Your task to perform on an android device: Open calendar and show me the first week of next month Image 0: 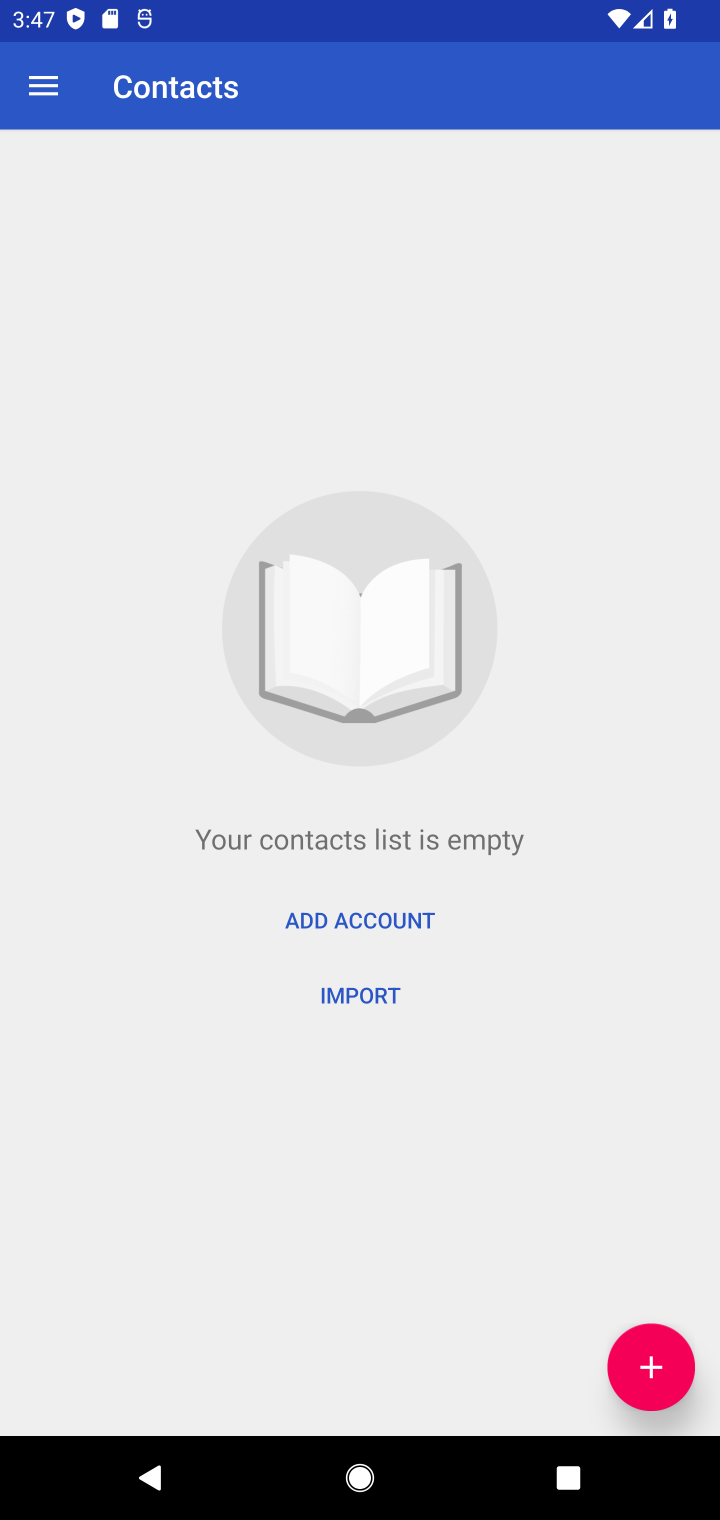
Step 0: press home button
Your task to perform on an android device: Open calendar and show me the first week of next month Image 1: 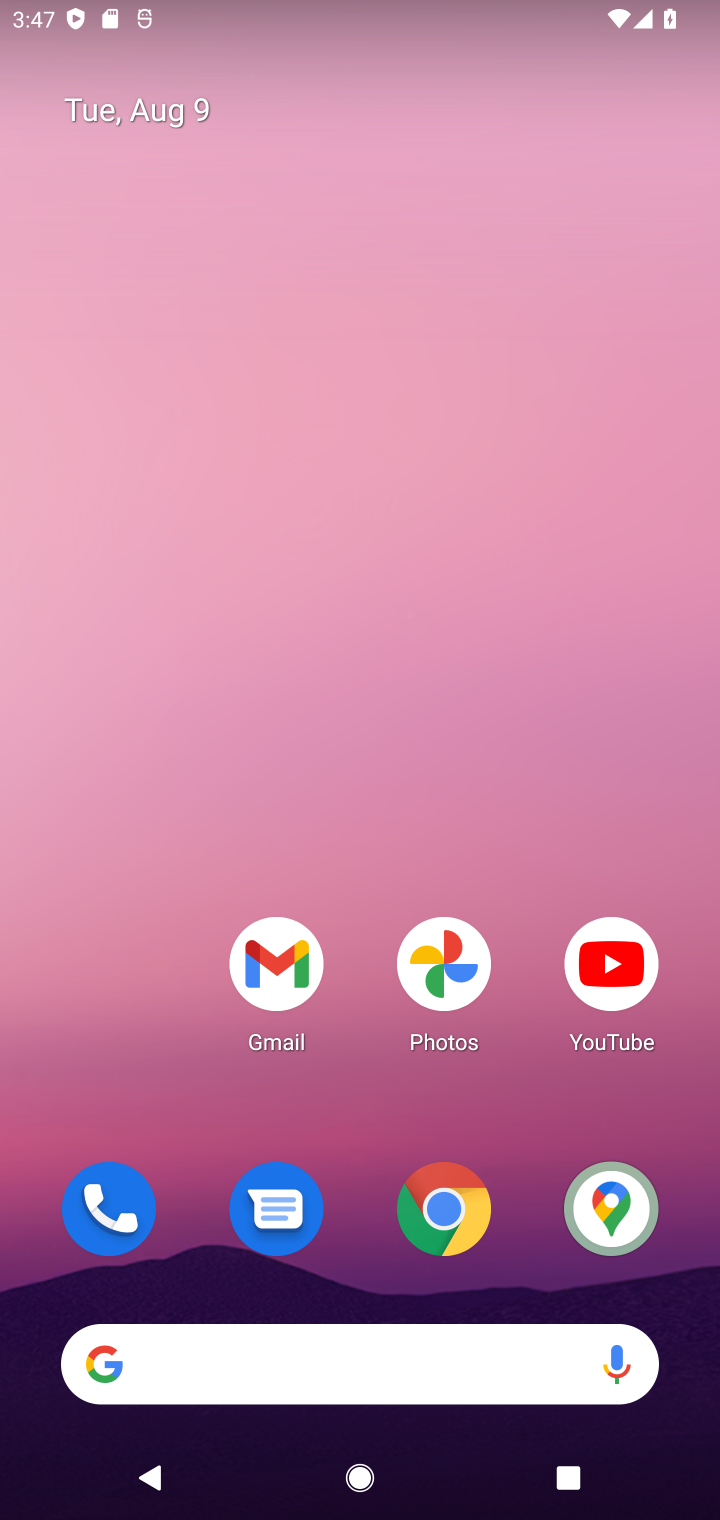
Step 1: drag from (135, 1042) to (110, 202)
Your task to perform on an android device: Open calendar and show me the first week of next month Image 2: 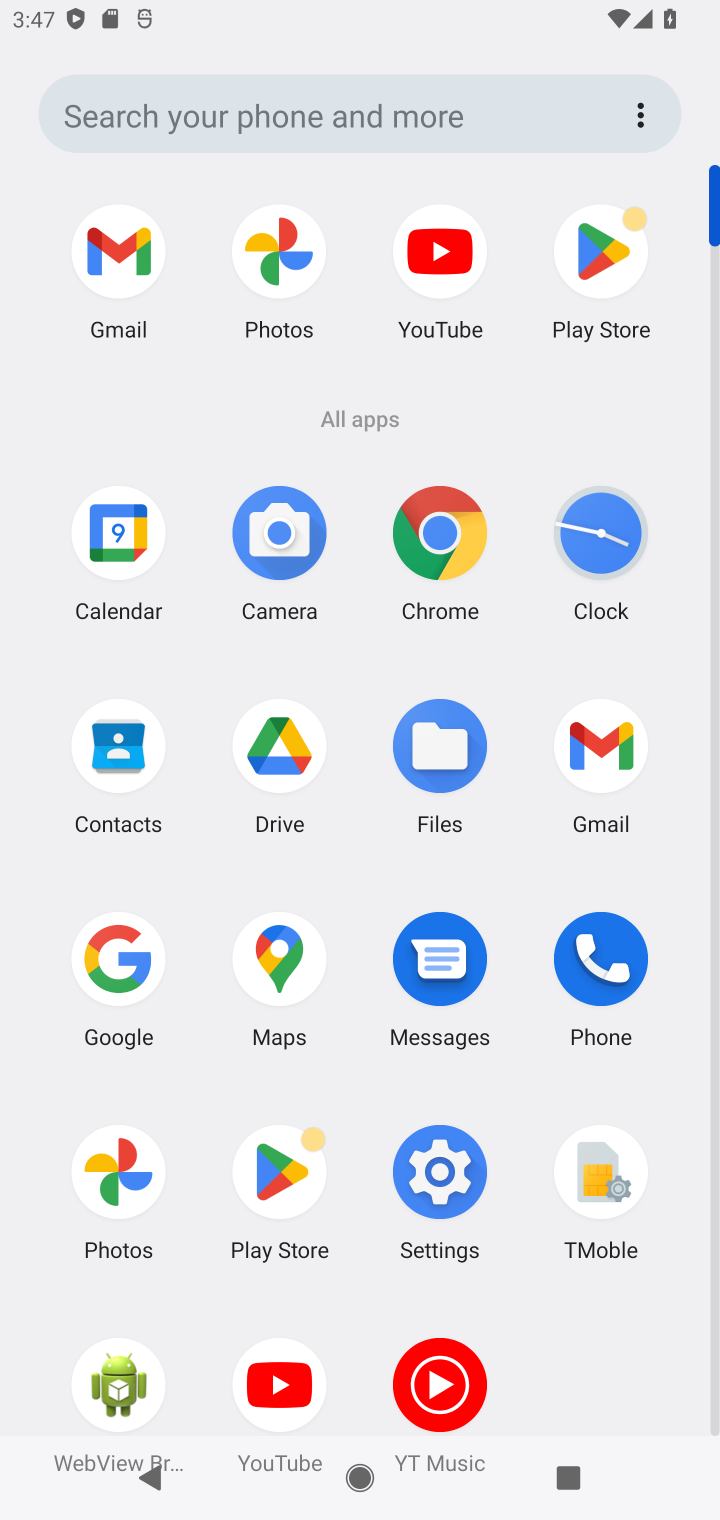
Step 2: click (120, 523)
Your task to perform on an android device: Open calendar and show me the first week of next month Image 3: 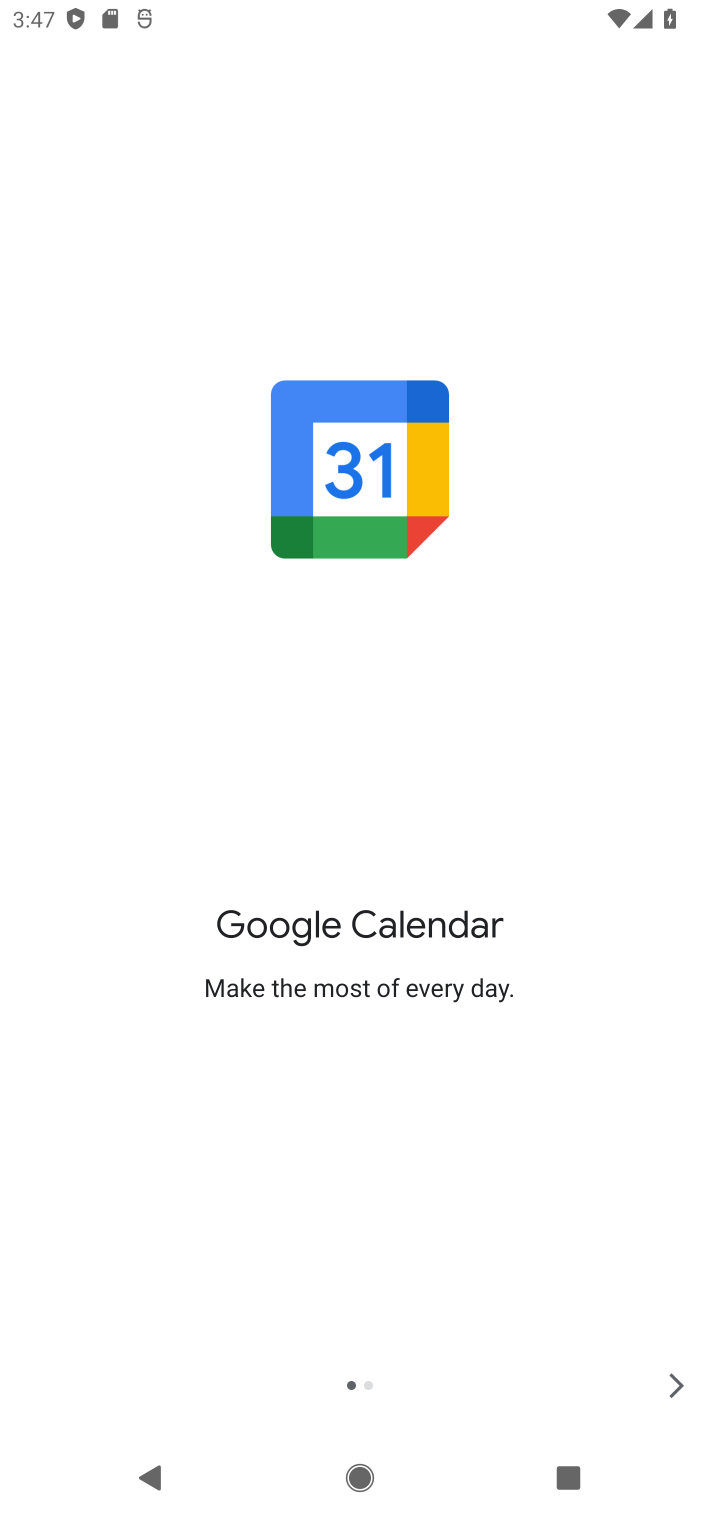
Step 3: click (689, 1382)
Your task to perform on an android device: Open calendar and show me the first week of next month Image 4: 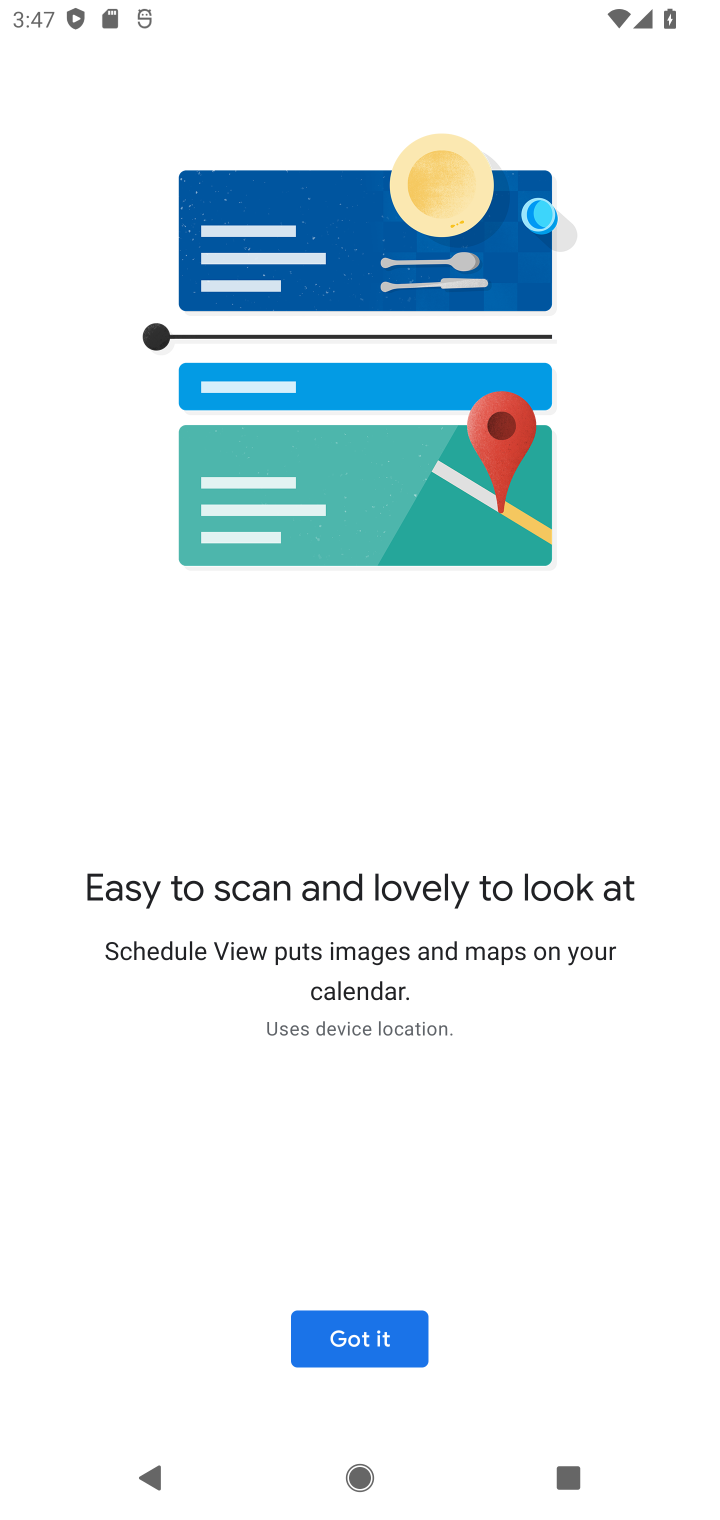
Step 4: click (368, 1334)
Your task to perform on an android device: Open calendar and show me the first week of next month Image 5: 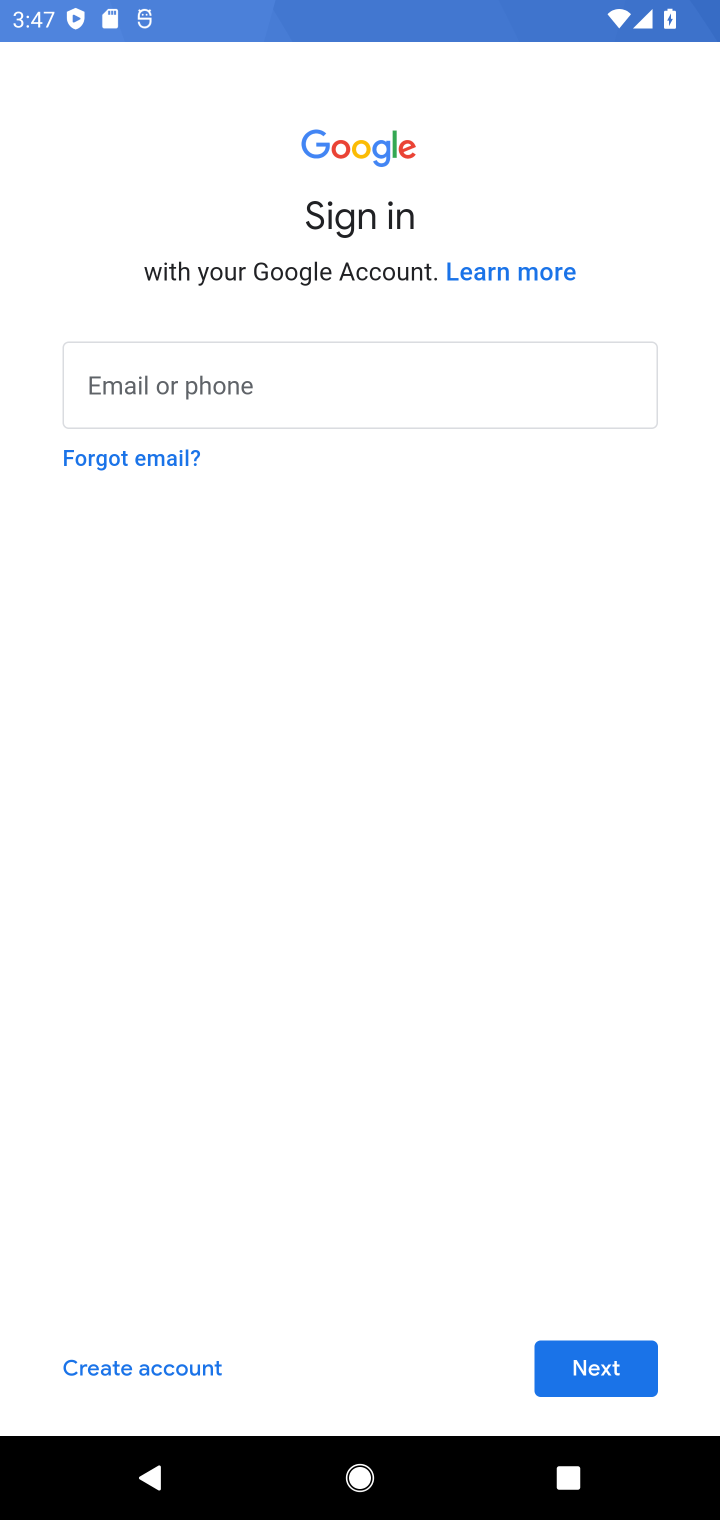
Step 5: task complete